Your task to perform on an android device: change keyboard looks Image 0: 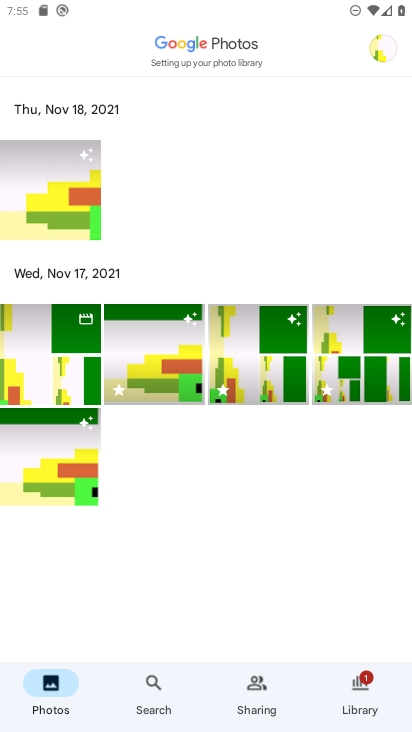
Step 0: press home button
Your task to perform on an android device: change keyboard looks Image 1: 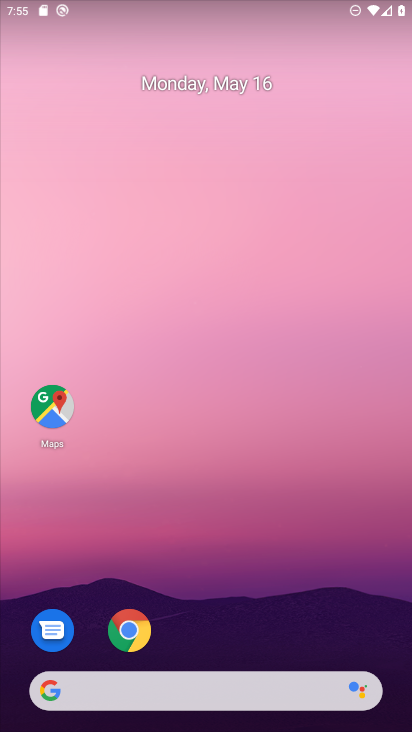
Step 1: drag from (244, 633) to (239, 348)
Your task to perform on an android device: change keyboard looks Image 2: 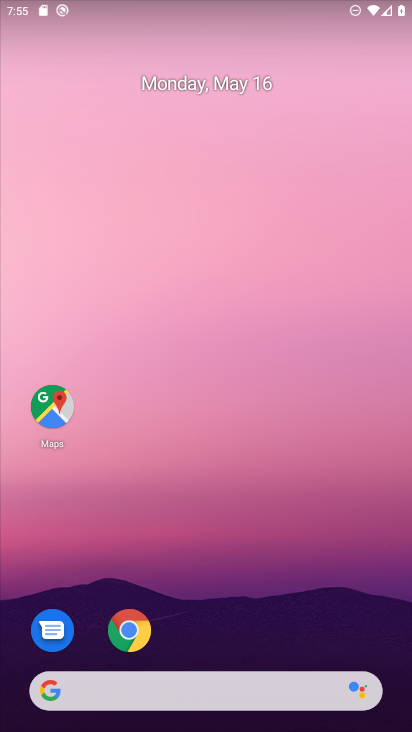
Step 2: drag from (232, 565) to (316, 72)
Your task to perform on an android device: change keyboard looks Image 3: 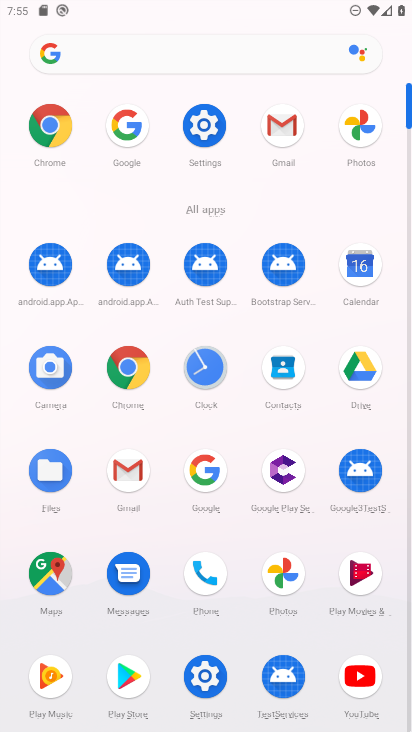
Step 3: click (200, 127)
Your task to perform on an android device: change keyboard looks Image 4: 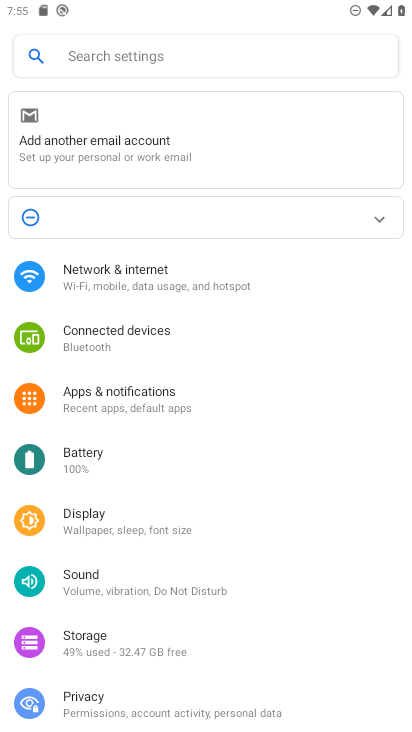
Step 4: drag from (237, 649) to (248, 297)
Your task to perform on an android device: change keyboard looks Image 5: 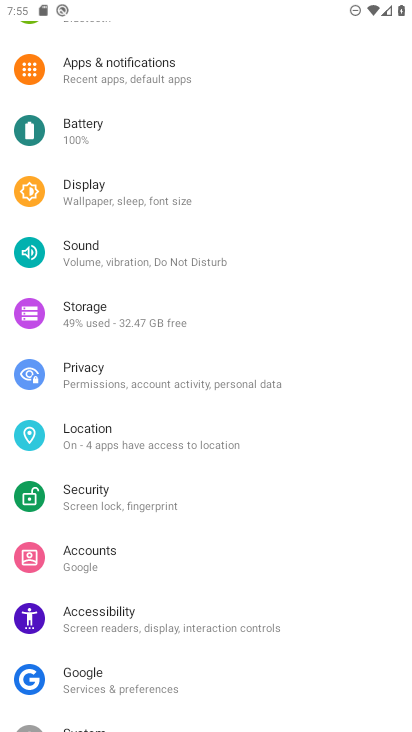
Step 5: drag from (234, 519) to (227, 217)
Your task to perform on an android device: change keyboard looks Image 6: 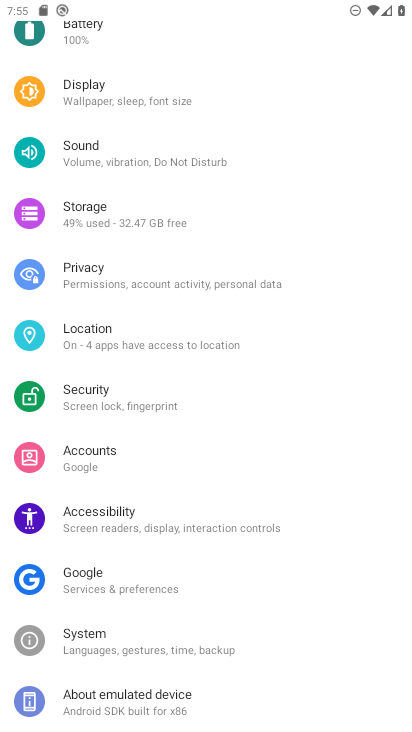
Step 6: click (164, 699)
Your task to perform on an android device: change keyboard looks Image 7: 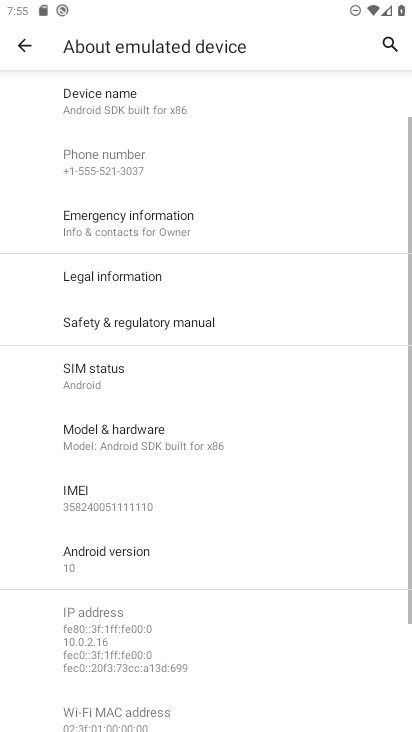
Step 7: drag from (177, 623) to (221, 272)
Your task to perform on an android device: change keyboard looks Image 8: 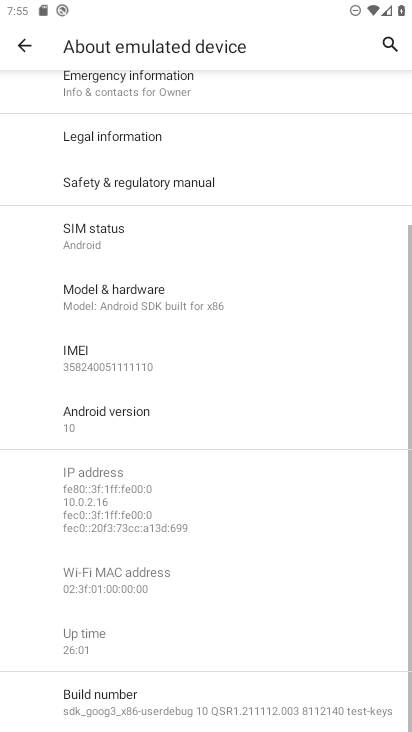
Step 8: press back button
Your task to perform on an android device: change keyboard looks Image 9: 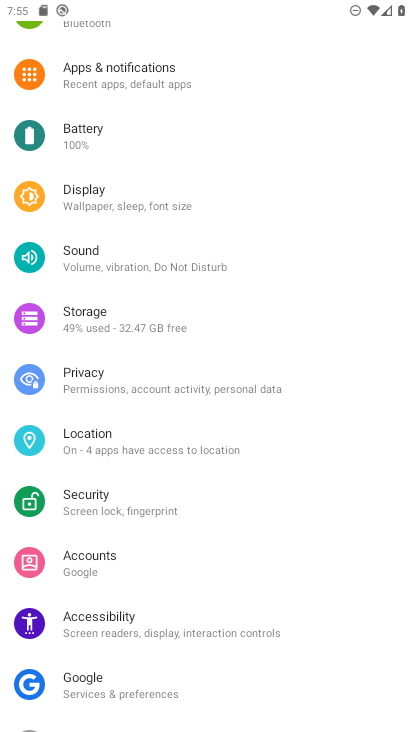
Step 9: drag from (282, 212) to (299, 561)
Your task to perform on an android device: change keyboard looks Image 10: 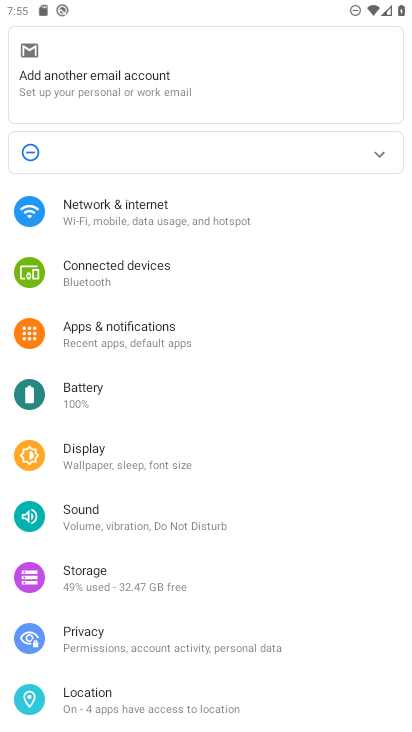
Step 10: click (125, 445)
Your task to perform on an android device: change keyboard looks Image 11: 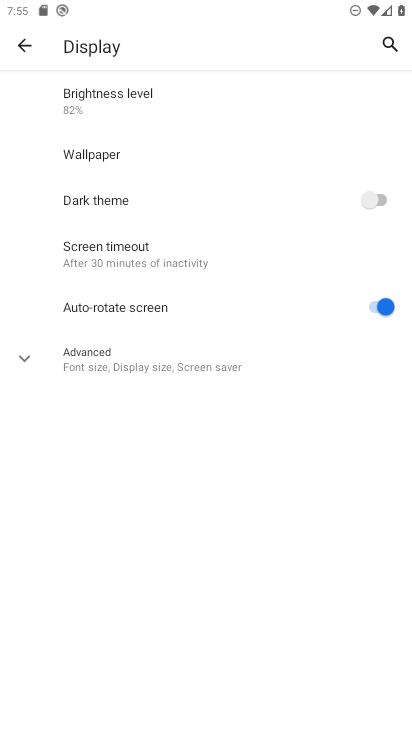
Step 11: click (185, 360)
Your task to perform on an android device: change keyboard looks Image 12: 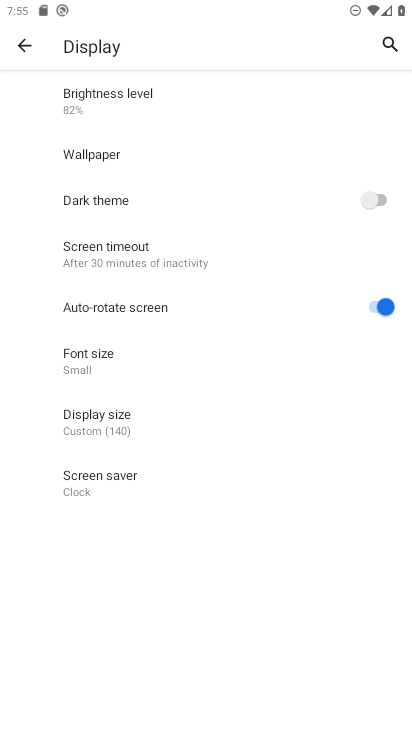
Step 12: task complete